Your task to perform on an android device: Go to eBay Image 0: 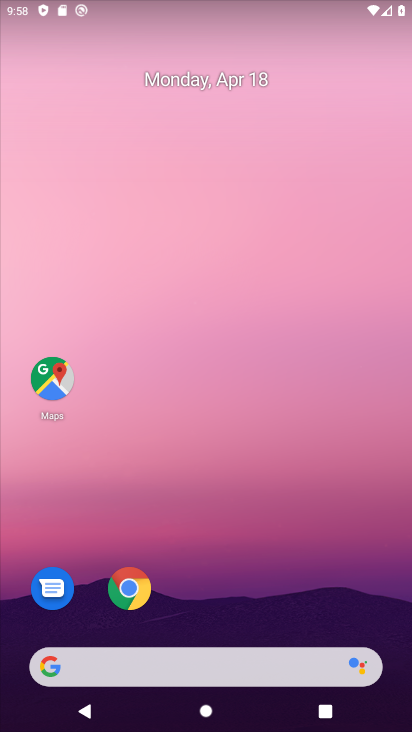
Step 0: drag from (316, 564) to (158, 26)
Your task to perform on an android device: Go to eBay Image 1: 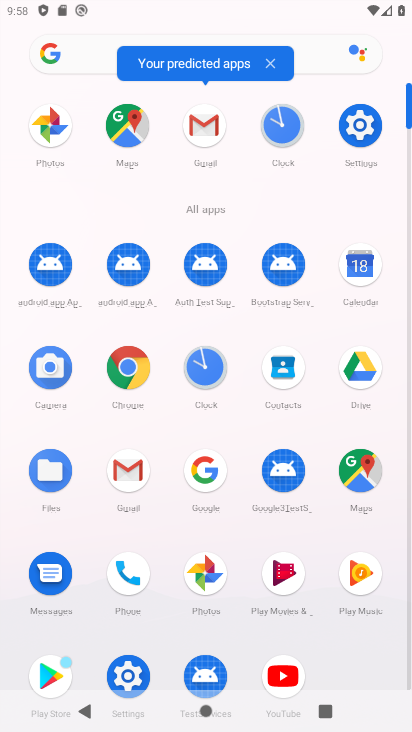
Step 1: click (129, 368)
Your task to perform on an android device: Go to eBay Image 2: 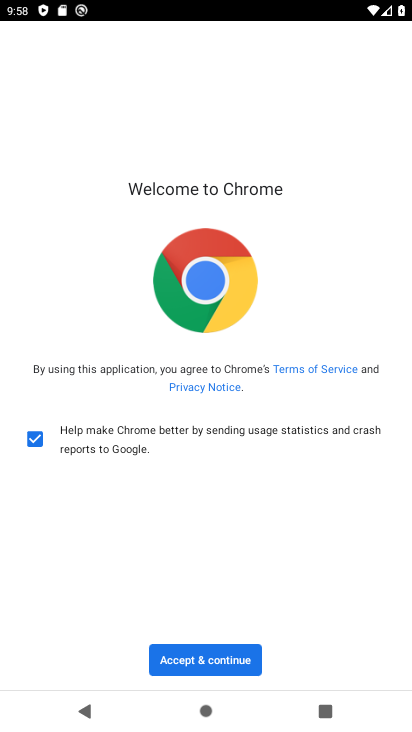
Step 2: click (193, 661)
Your task to perform on an android device: Go to eBay Image 3: 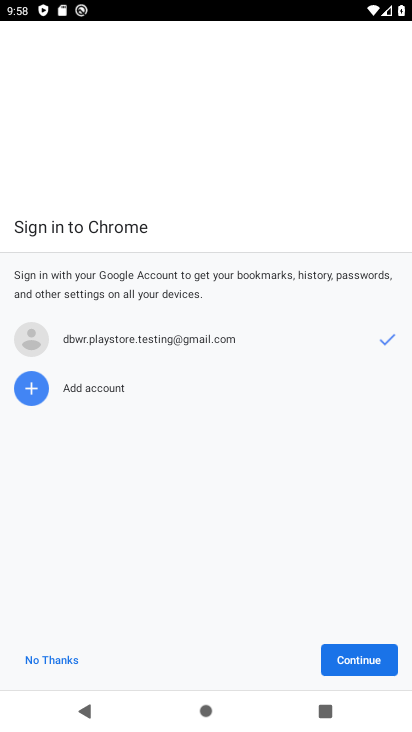
Step 3: click (333, 649)
Your task to perform on an android device: Go to eBay Image 4: 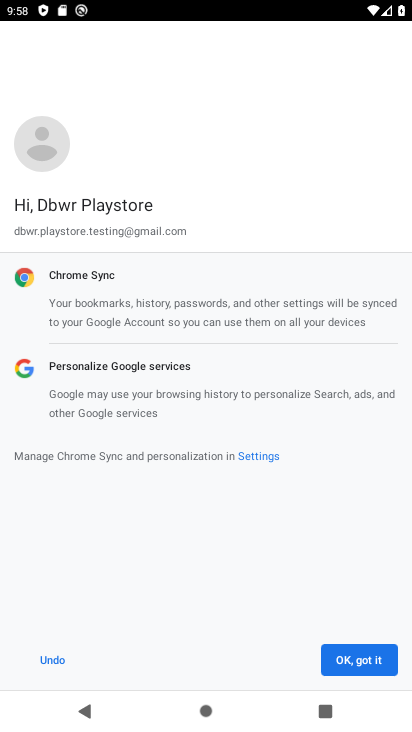
Step 4: click (332, 654)
Your task to perform on an android device: Go to eBay Image 5: 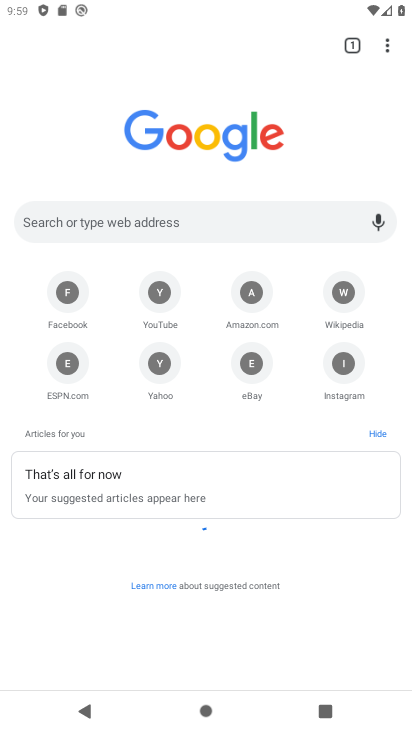
Step 5: click (198, 226)
Your task to perform on an android device: Go to eBay Image 6: 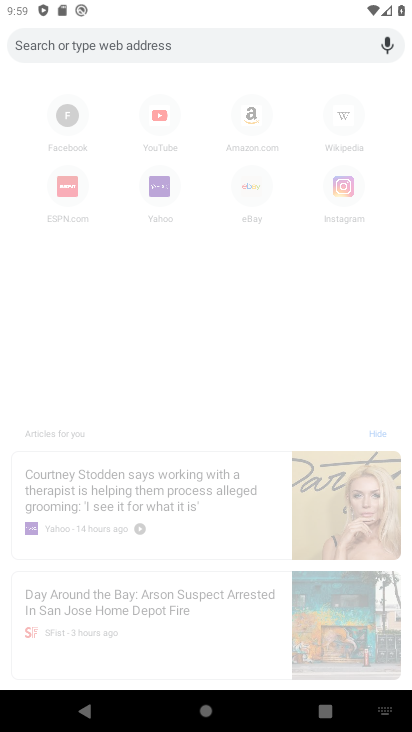
Step 6: type "eBay"
Your task to perform on an android device: Go to eBay Image 7: 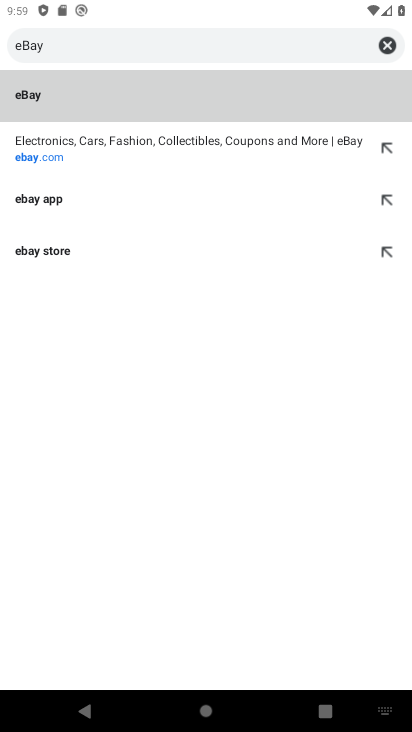
Step 7: click (102, 136)
Your task to perform on an android device: Go to eBay Image 8: 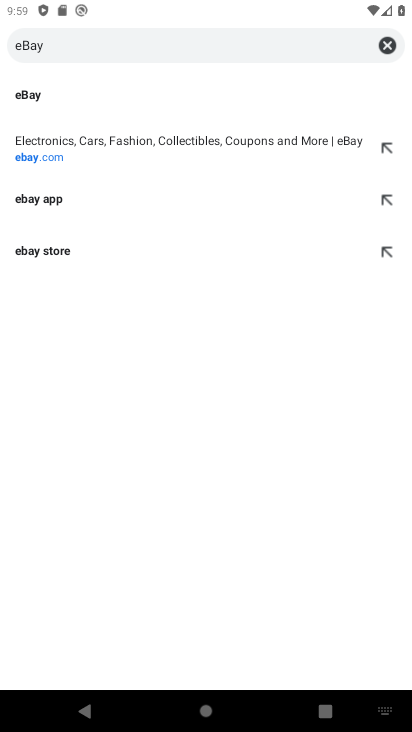
Step 8: click (76, 87)
Your task to perform on an android device: Go to eBay Image 9: 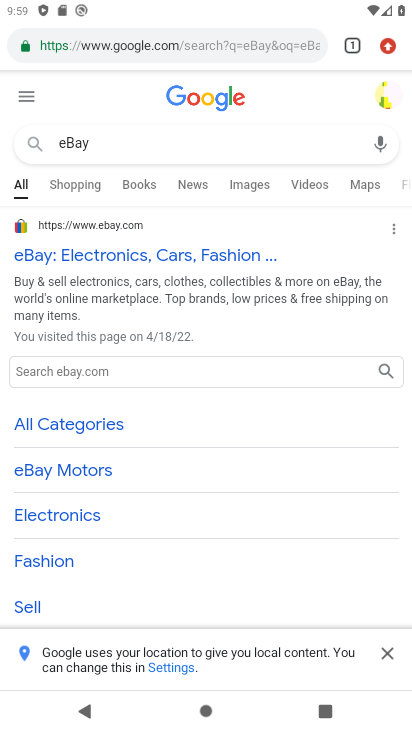
Step 9: click (51, 247)
Your task to perform on an android device: Go to eBay Image 10: 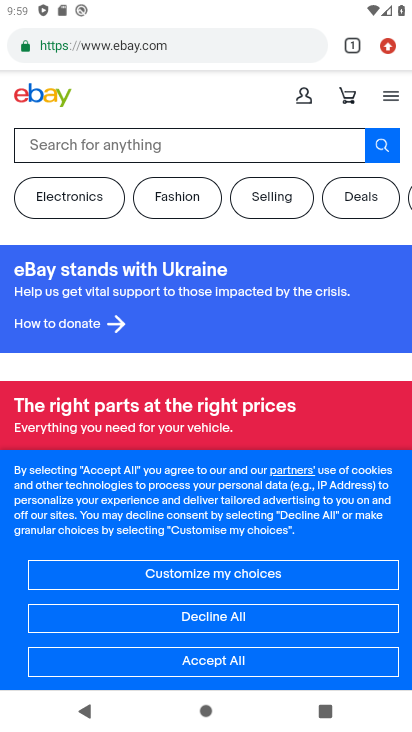
Step 10: task complete